Your task to perform on an android device: Open the calendar app, open the side menu, and click the "Day" option Image 0: 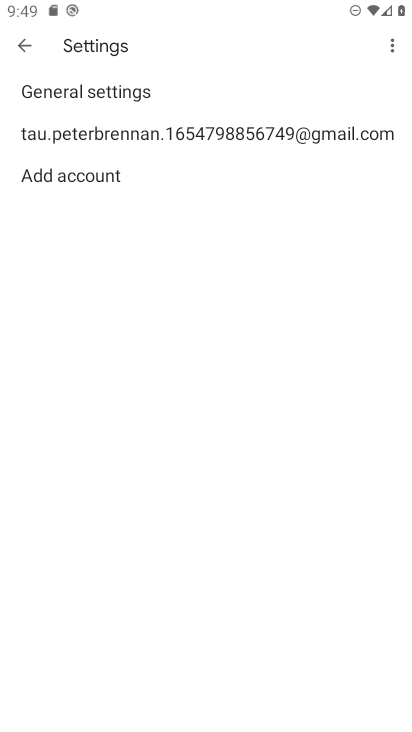
Step 0: press home button
Your task to perform on an android device: Open the calendar app, open the side menu, and click the "Day" option Image 1: 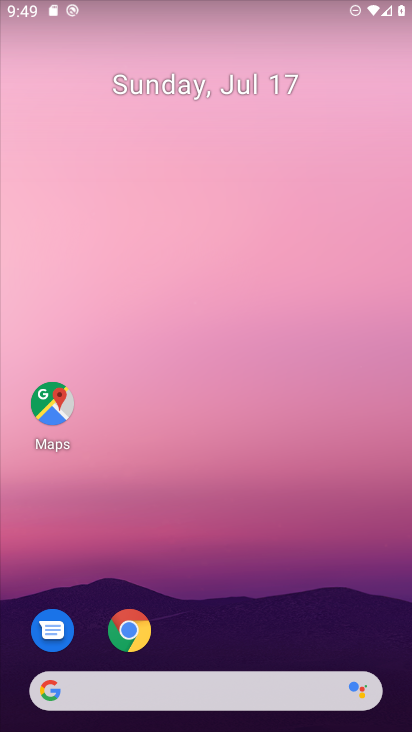
Step 1: drag from (165, 594) to (165, 140)
Your task to perform on an android device: Open the calendar app, open the side menu, and click the "Day" option Image 2: 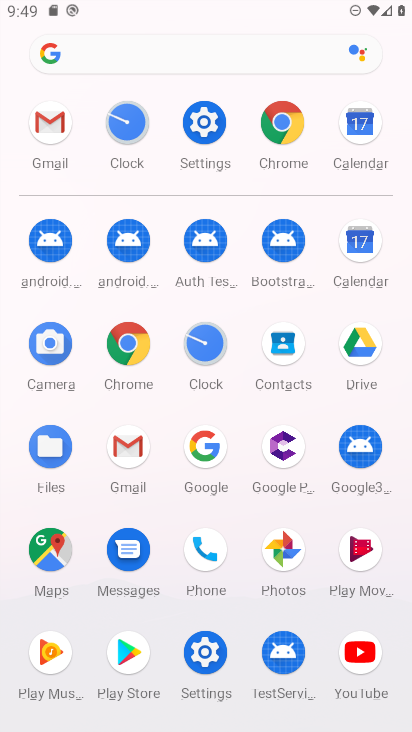
Step 2: click (372, 232)
Your task to perform on an android device: Open the calendar app, open the side menu, and click the "Day" option Image 3: 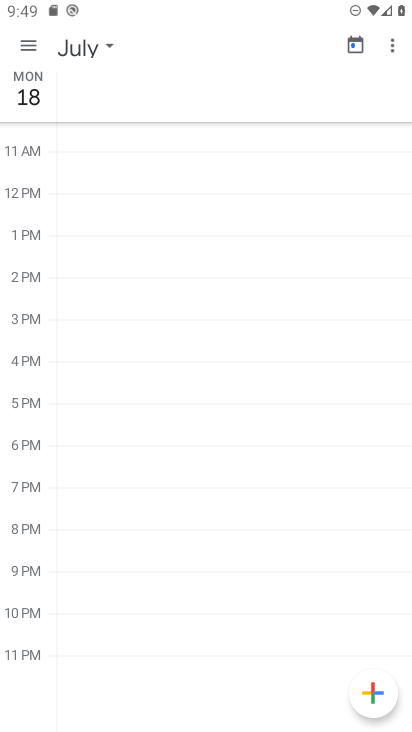
Step 3: click (25, 43)
Your task to perform on an android device: Open the calendar app, open the side menu, and click the "Day" option Image 4: 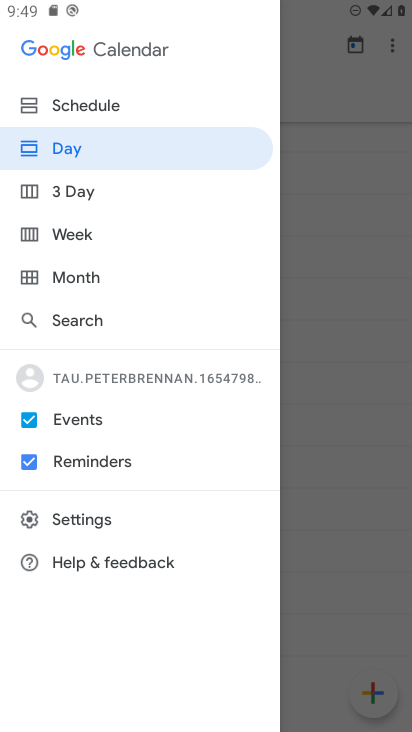
Step 4: click (93, 155)
Your task to perform on an android device: Open the calendar app, open the side menu, and click the "Day" option Image 5: 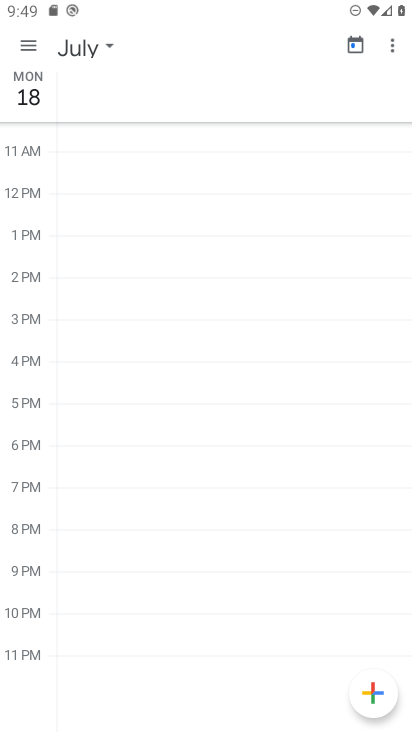
Step 5: task complete